Your task to perform on an android device: change your default location settings in chrome Image 0: 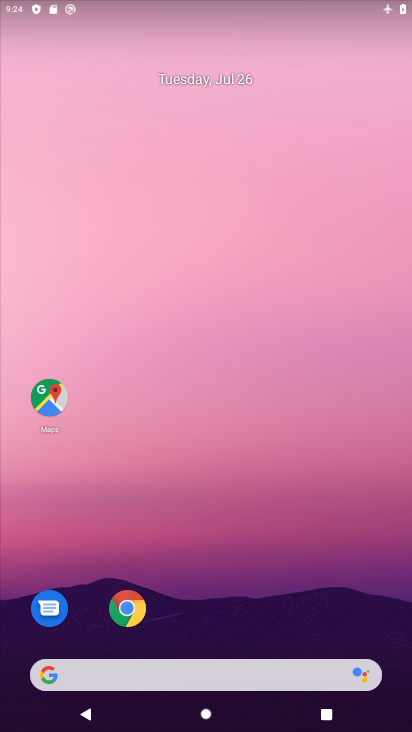
Step 0: click (125, 621)
Your task to perform on an android device: change your default location settings in chrome Image 1: 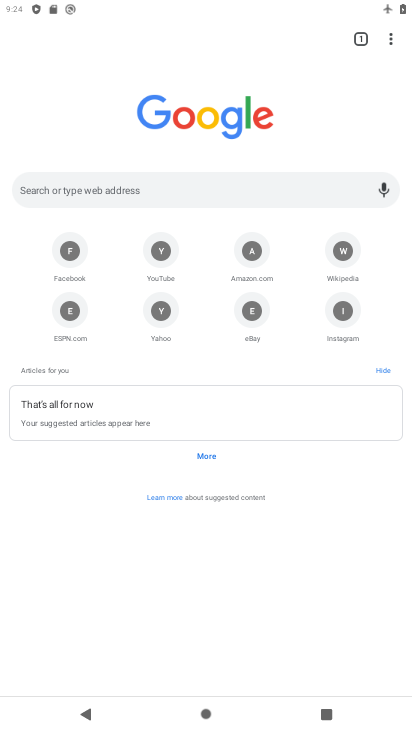
Step 1: click (399, 37)
Your task to perform on an android device: change your default location settings in chrome Image 2: 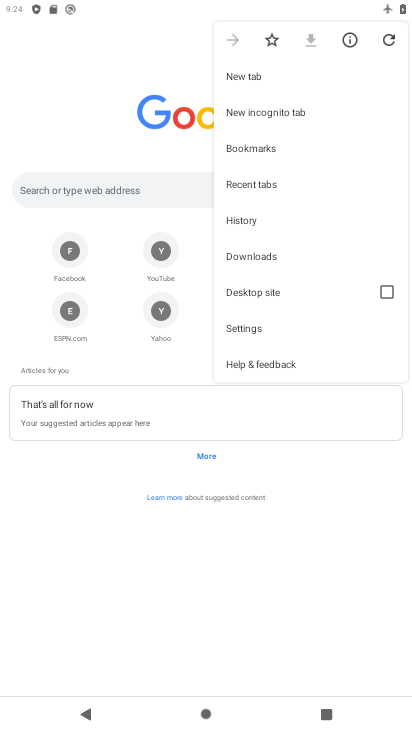
Step 2: click (250, 330)
Your task to perform on an android device: change your default location settings in chrome Image 3: 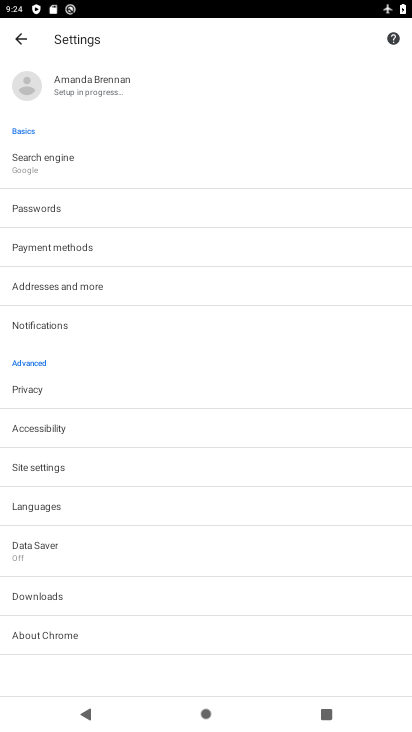
Step 3: click (28, 466)
Your task to perform on an android device: change your default location settings in chrome Image 4: 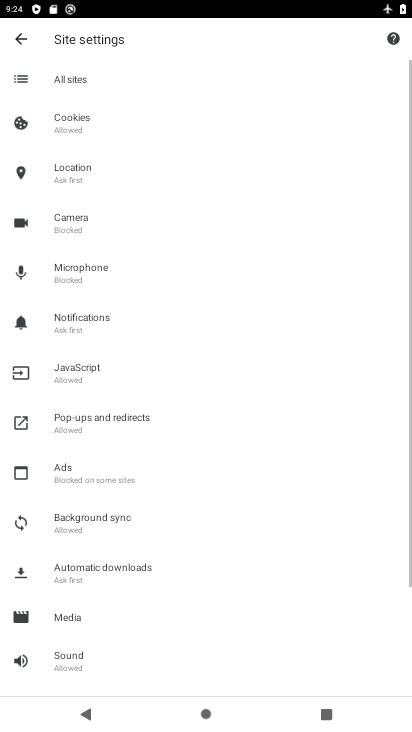
Step 4: click (101, 173)
Your task to perform on an android device: change your default location settings in chrome Image 5: 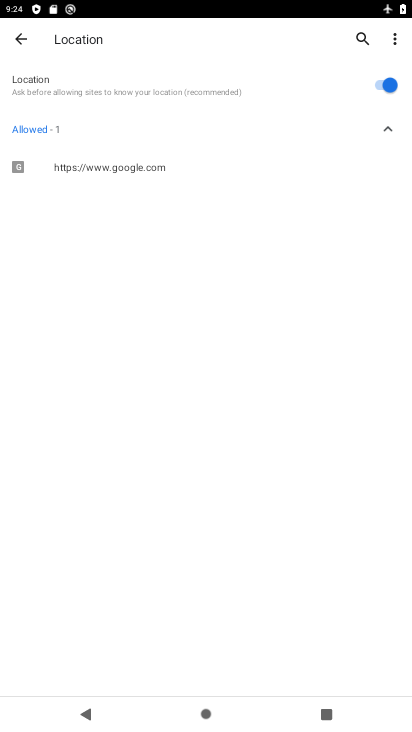
Step 5: click (105, 167)
Your task to perform on an android device: change your default location settings in chrome Image 6: 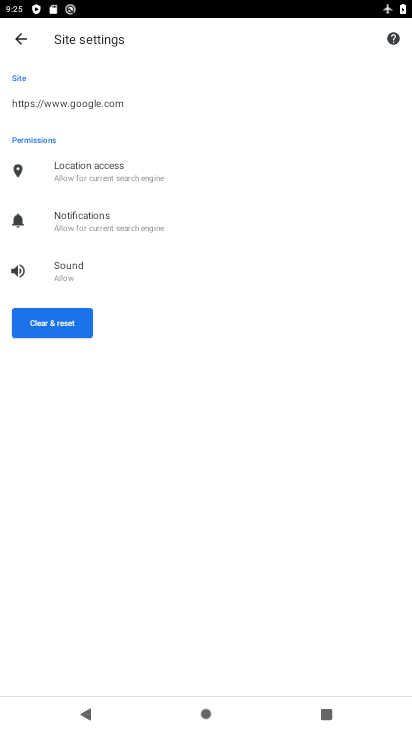
Step 6: click (93, 176)
Your task to perform on an android device: change your default location settings in chrome Image 7: 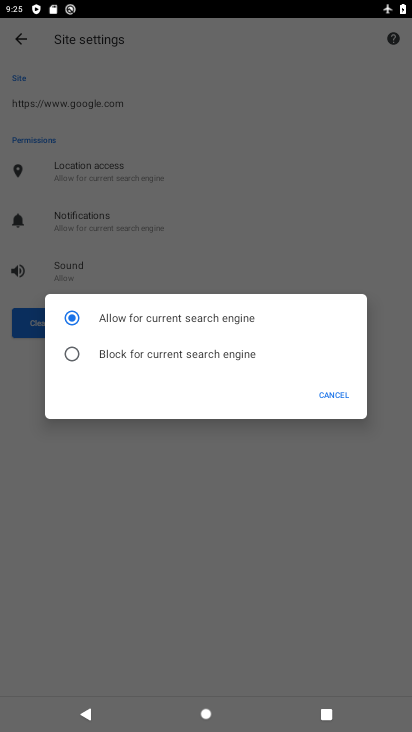
Step 7: click (209, 363)
Your task to perform on an android device: change your default location settings in chrome Image 8: 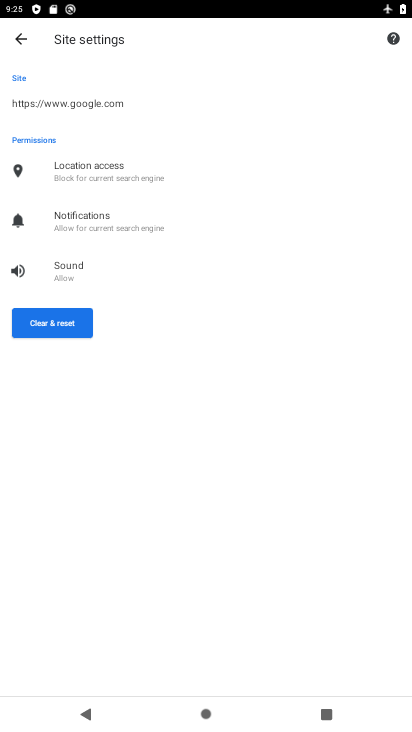
Step 8: task complete